Your task to perform on an android device: Turn on the flashlight Image 0: 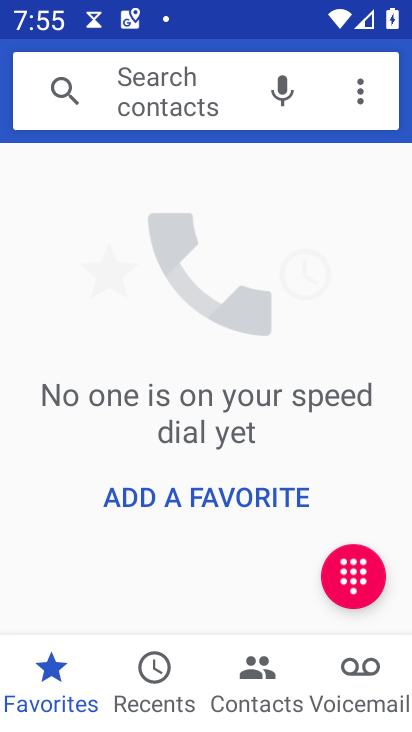
Step 0: press home button
Your task to perform on an android device: Turn on the flashlight Image 1: 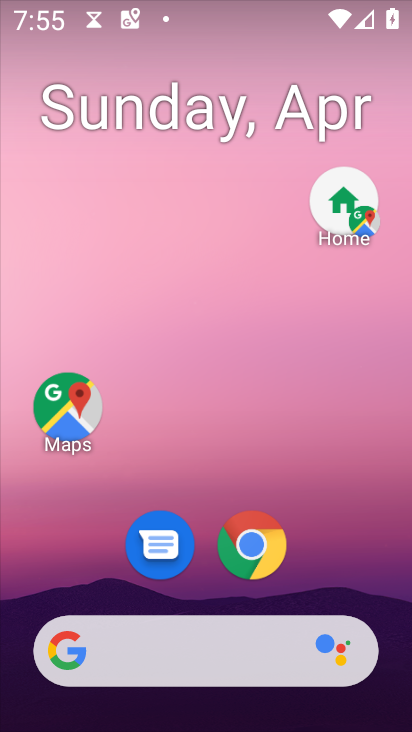
Step 1: drag from (287, 503) to (269, 199)
Your task to perform on an android device: Turn on the flashlight Image 2: 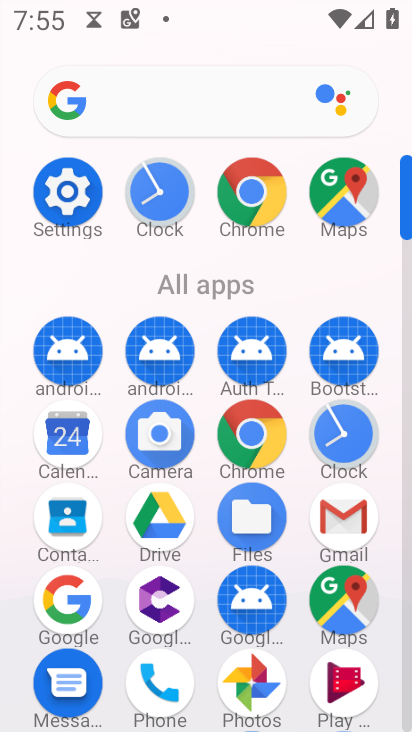
Step 2: click (81, 192)
Your task to perform on an android device: Turn on the flashlight Image 3: 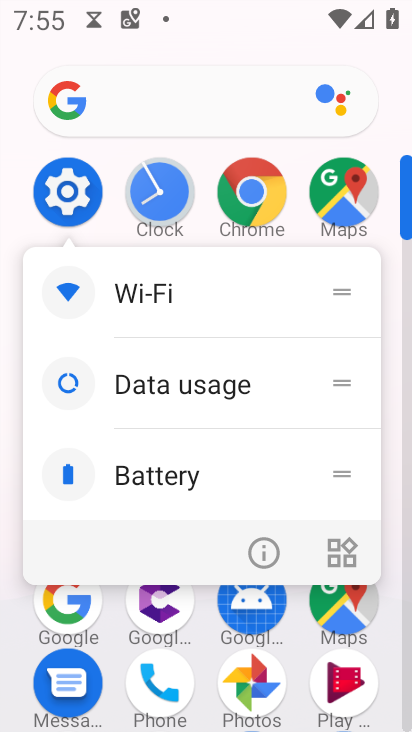
Step 3: click (72, 186)
Your task to perform on an android device: Turn on the flashlight Image 4: 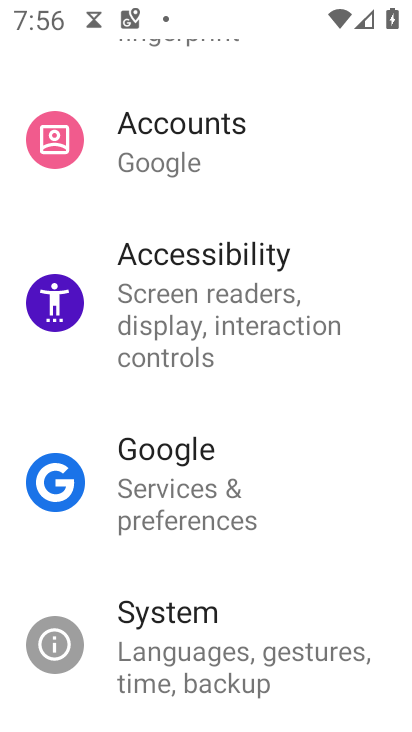
Step 4: click (244, 657)
Your task to perform on an android device: Turn on the flashlight Image 5: 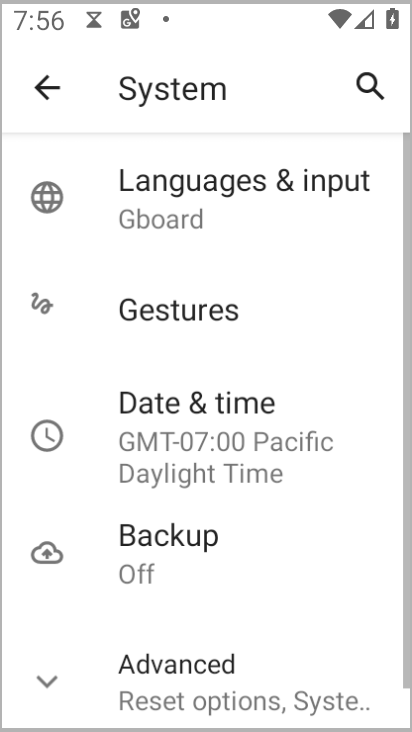
Step 5: task complete